Your task to perform on an android device: turn off location history Image 0: 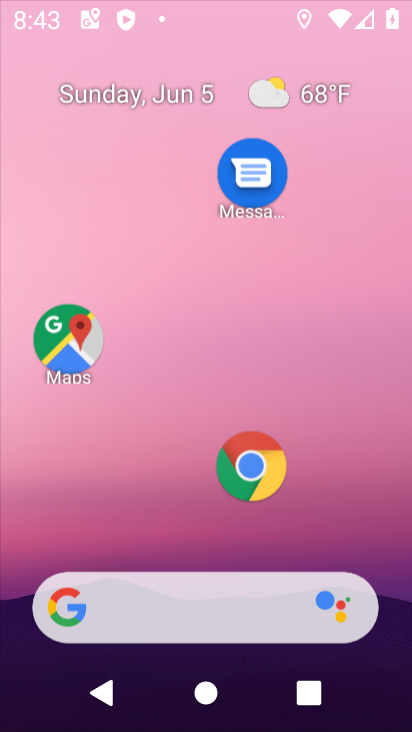
Step 0: drag from (274, 192) to (202, 9)
Your task to perform on an android device: turn off location history Image 1: 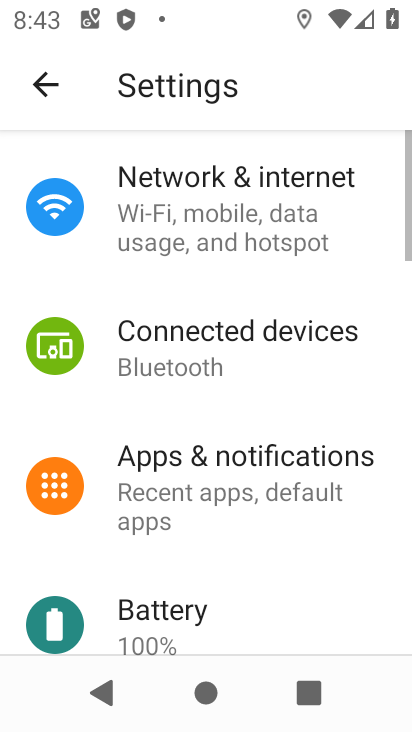
Step 1: drag from (243, 589) to (292, 284)
Your task to perform on an android device: turn off location history Image 2: 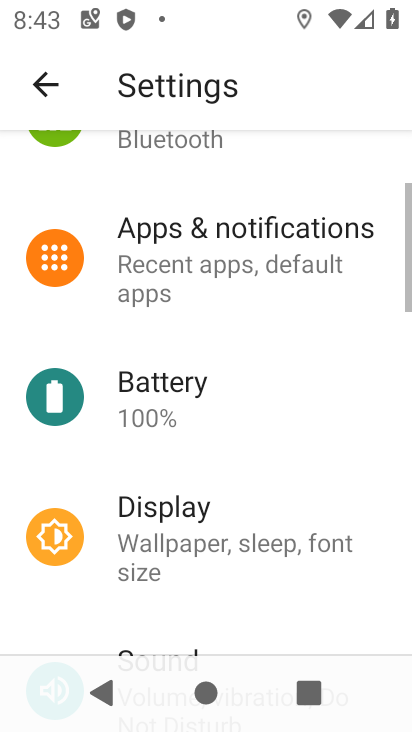
Step 2: drag from (263, 554) to (300, 308)
Your task to perform on an android device: turn off location history Image 3: 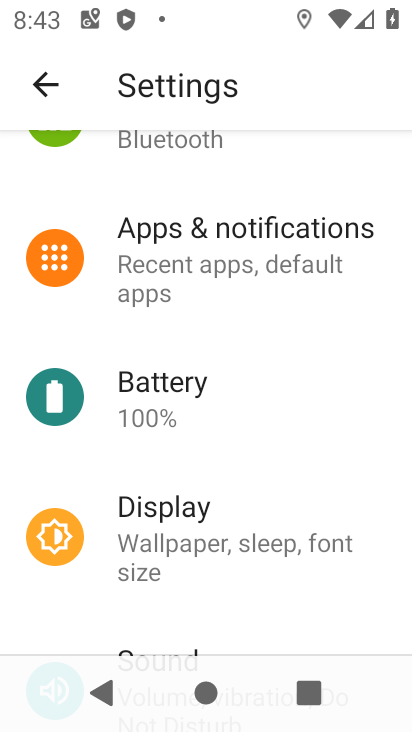
Step 3: drag from (228, 529) to (280, 151)
Your task to perform on an android device: turn off location history Image 4: 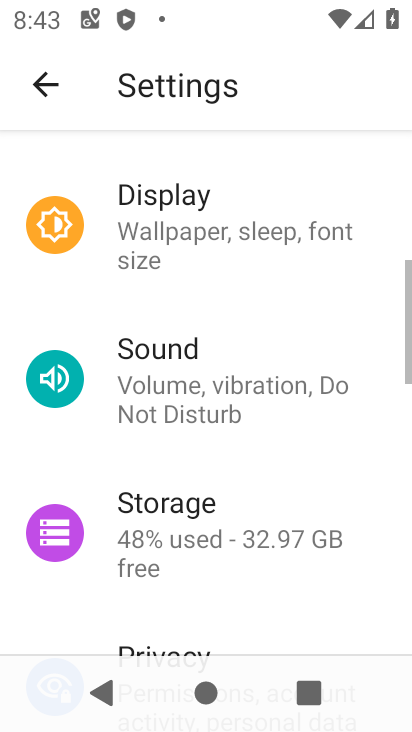
Step 4: click (319, 207)
Your task to perform on an android device: turn off location history Image 5: 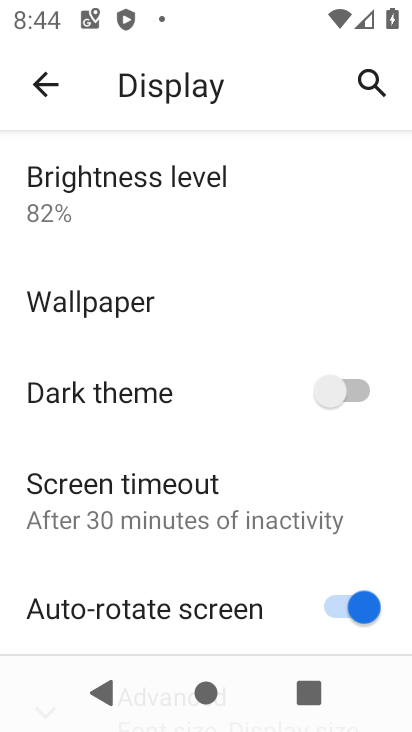
Step 5: drag from (219, 617) to (216, 298)
Your task to perform on an android device: turn off location history Image 6: 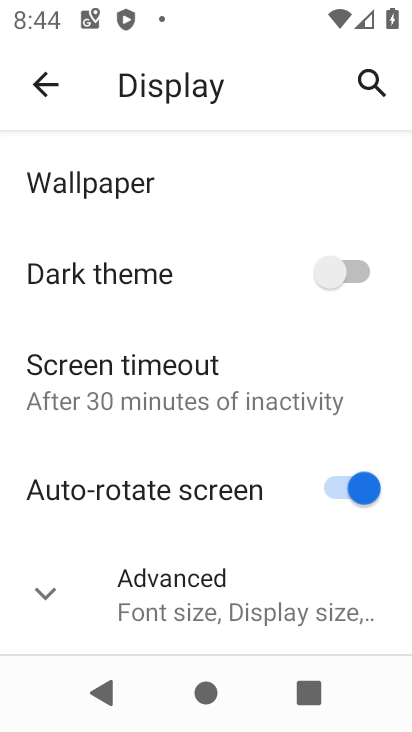
Step 6: click (47, 89)
Your task to perform on an android device: turn off location history Image 7: 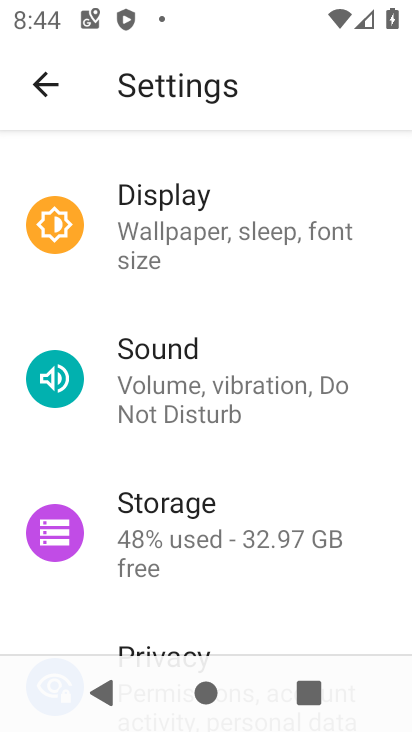
Step 7: drag from (213, 557) to (303, 106)
Your task to perform on an android device: turn off location history Image 8: 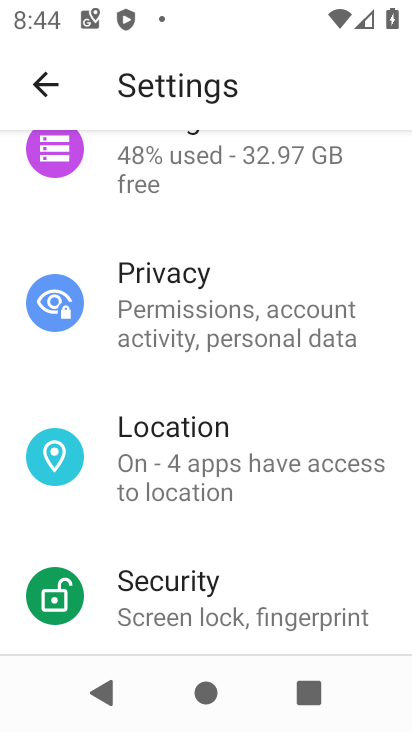
Step 8: click (230, 426)
Your task to perform on an android device: turn off location history Image 9: 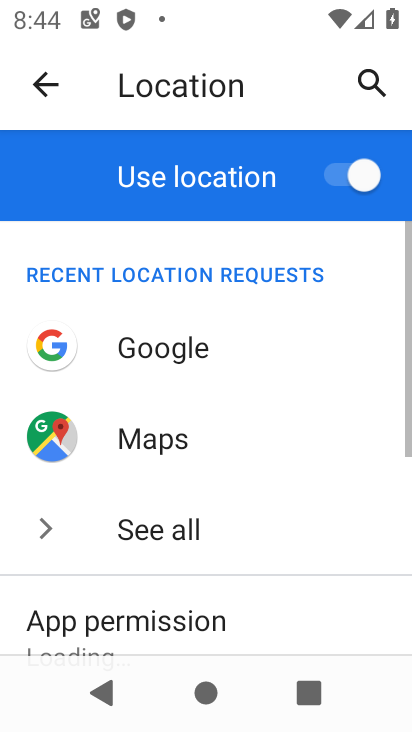
Step 9: drag from (240, 541) to (329, 230)
Your task to perform on an android device: turn off location history Image 10: 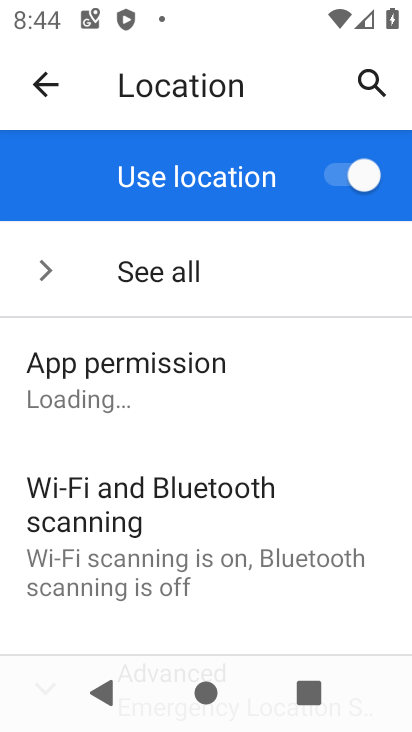
Step 10: drag from (76, 579) to (229, 218)
Your task to perform on an android device: turn off location history Image 11: 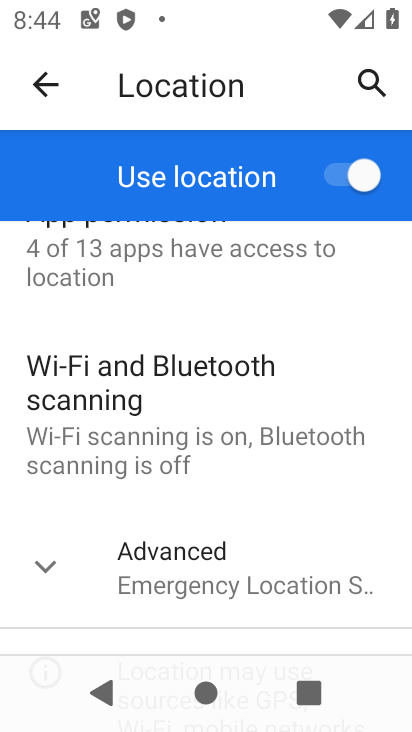
Step 11: click (166, 536)
Your task to perform on an android device: turn off location history Image 12: 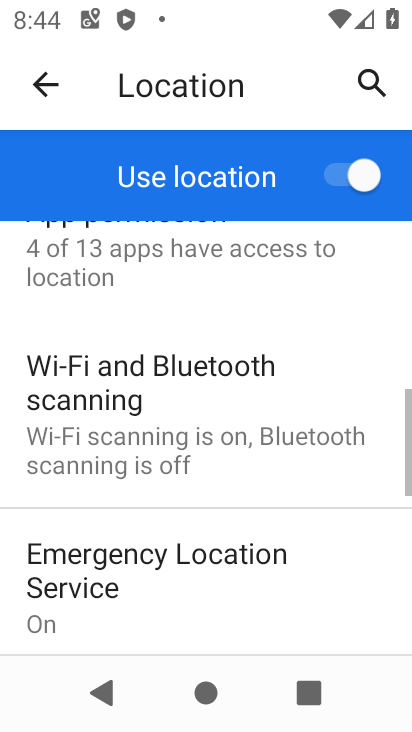
Step 12: drag from (229, 575) to (280, 149)
Your task to perform on an android device: turn off location history Image 13: 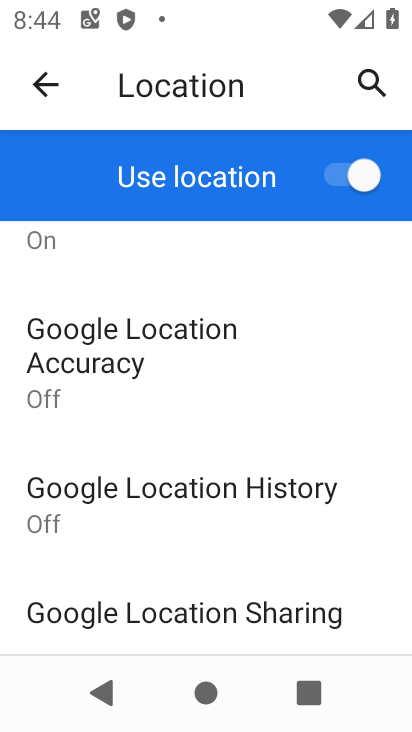
Step 13: click (219, 505)
Your task to perform on an android device: turn off location history Image 14: 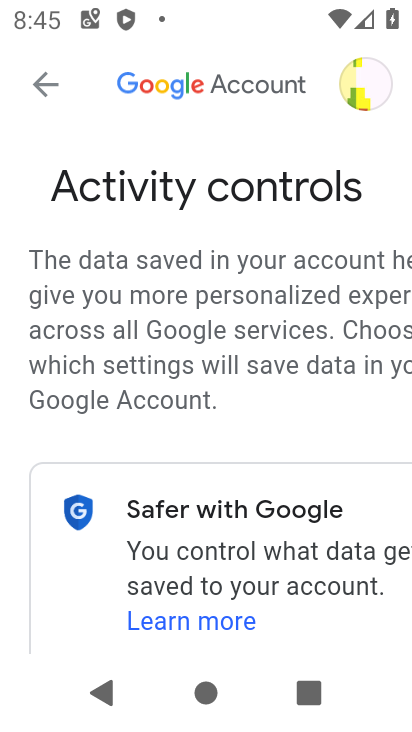
Step 14: drag from (226, 514) to (321, 138)
Your task to perform on an android device: turn off location history Image 15: 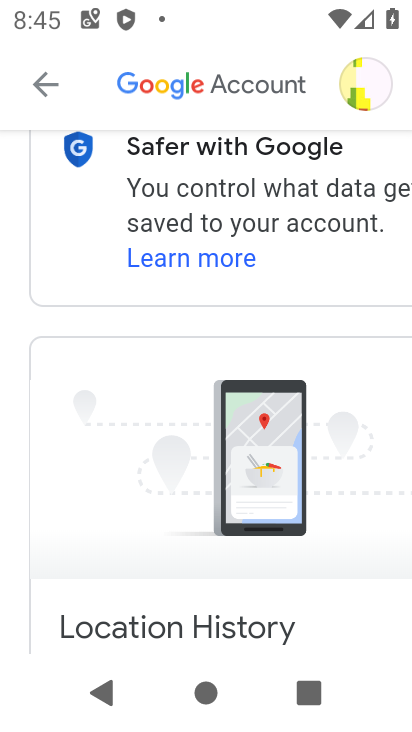
Step 15: drag from (227, 468) to (309, 117)
Your task to perform on an android device: turn off location history Image 16: 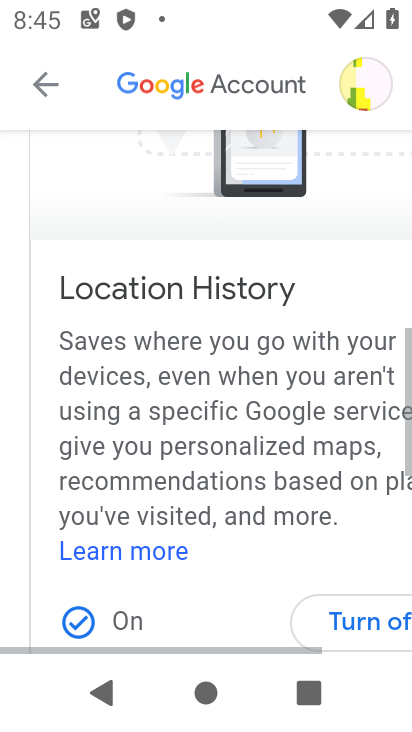
Step 16: drag from (222, 564) to (292, 153)
Your task to perform on an android device: turn off location history Image 17: 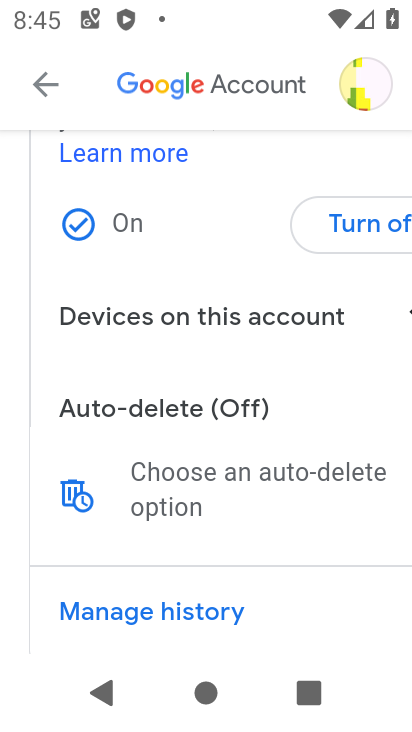
Step 17: click (381, 225)
Your task to perform on an android device: turn off location history Image 18: 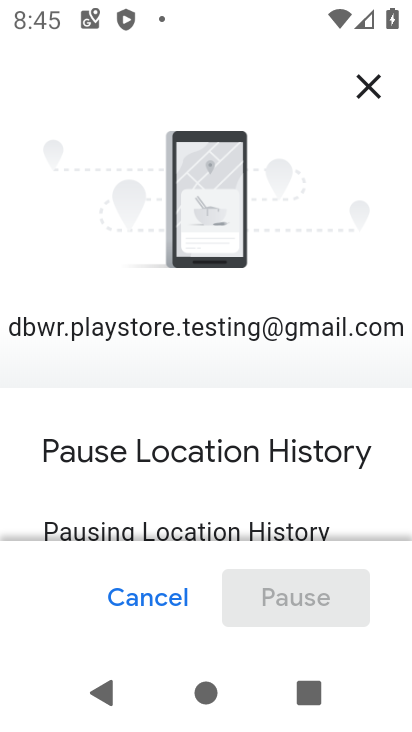
Step 18: drag from (281, 184) to (71, 0)
Your task to perform on an android device: turn off location history Image 19: 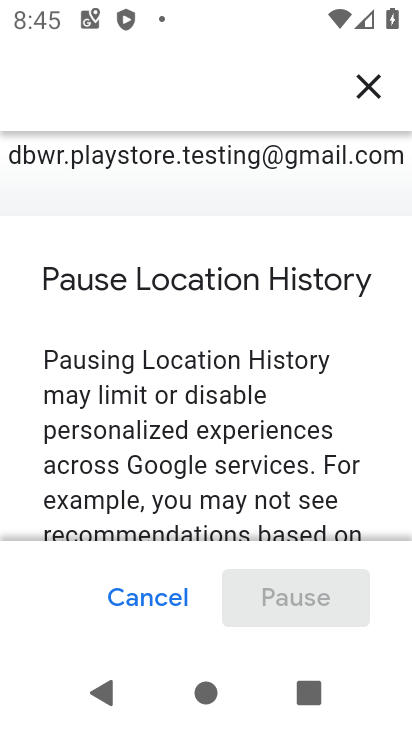
Step 19: drag from (263, 438) to (411, 48)
Your task to perform on an android device: turn off location history Image 20: 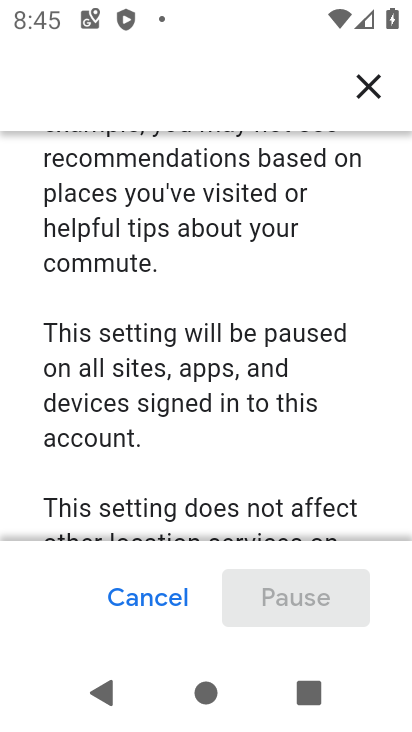
Step 20: drag from (205, 497) to (249, 65)
Your task to perform on an android device: turn off location history Image 21: 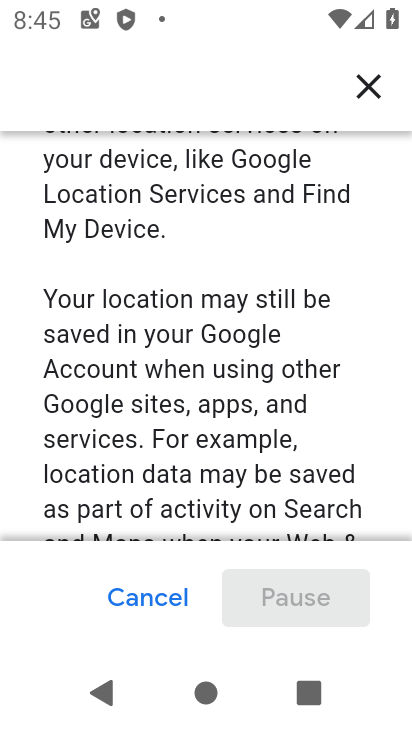
Step 21: drag from (223, 514) to (291, 113)
Your task to perform on an android device: turn off location history Image 22: 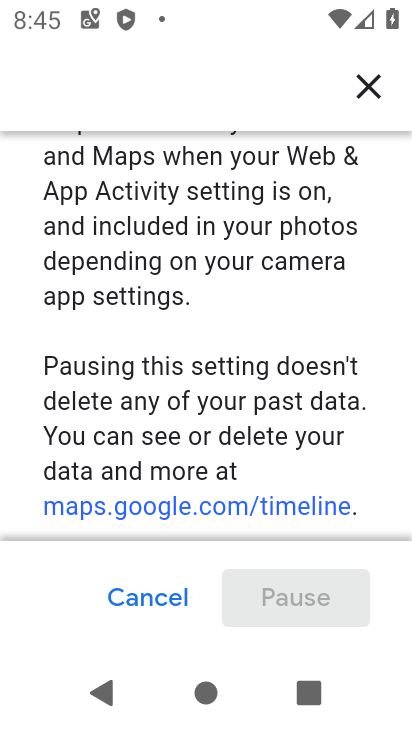
Step 22: drag from (190, 494) to (288, 100)
Your task to perform on an android device: turn off location history Image 23: 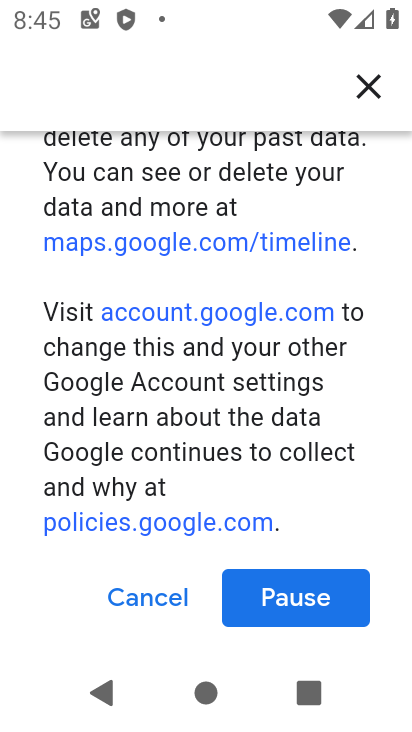
Step 23: drag from (198, 489) to (242, 377)
Your task to perform on an android device: turn off location history Image 24: 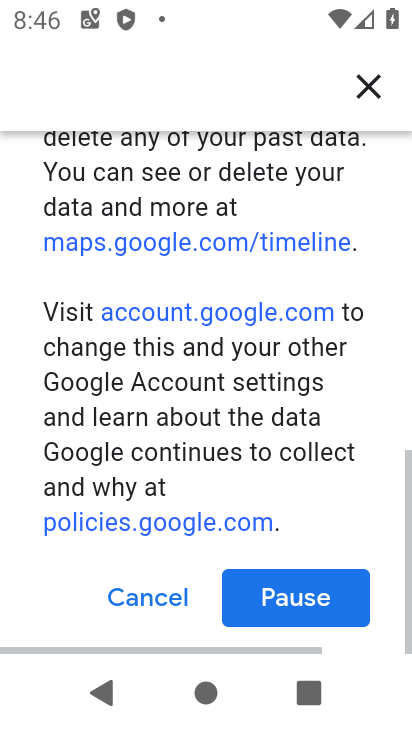
Step 24: click (280, 600)
Your task to perform on an android device: turn off location history Image 25: 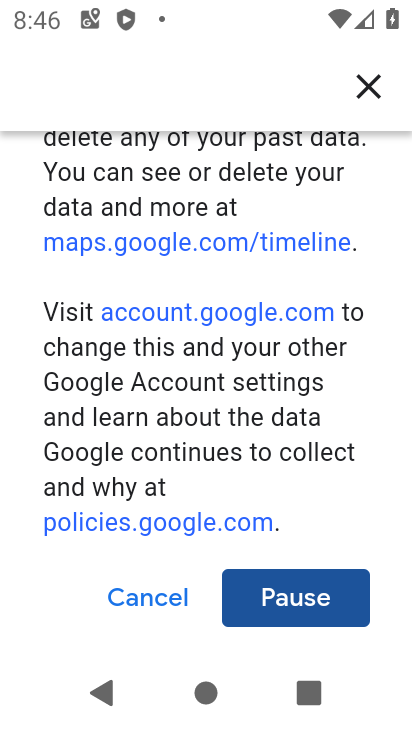
Step 25: click (280, 600)
Your task to perform on an android device: turn off location history Image 26: 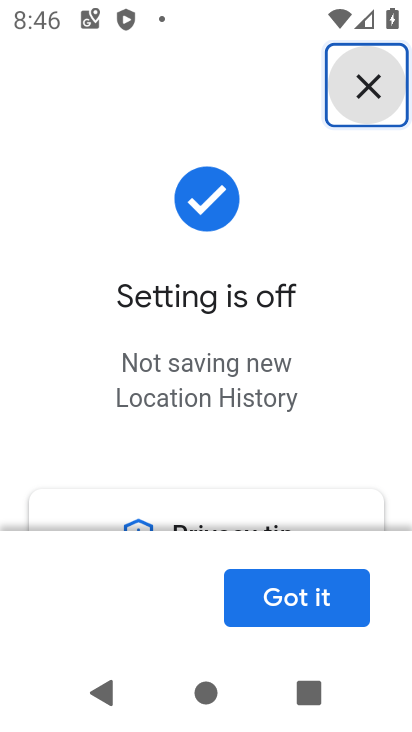
Step 26: click (293, 589)
Your task to perform on an android device: turn off location history Image 27: 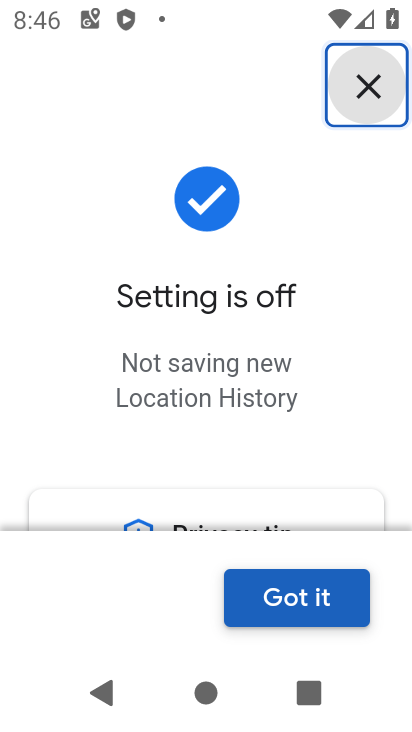
Step 27: task complete